Your task to perform on an android device: turn on improve location accuracy Image 0: 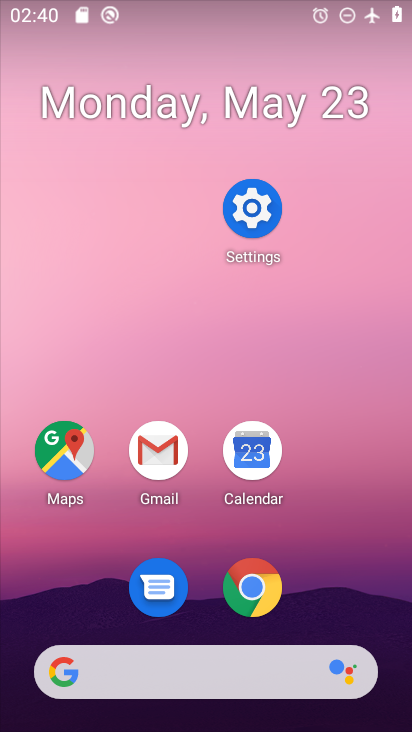
Step 0: click (332, 596)
Your task to perform on an android device: turn on improve location accuracy Image 1: 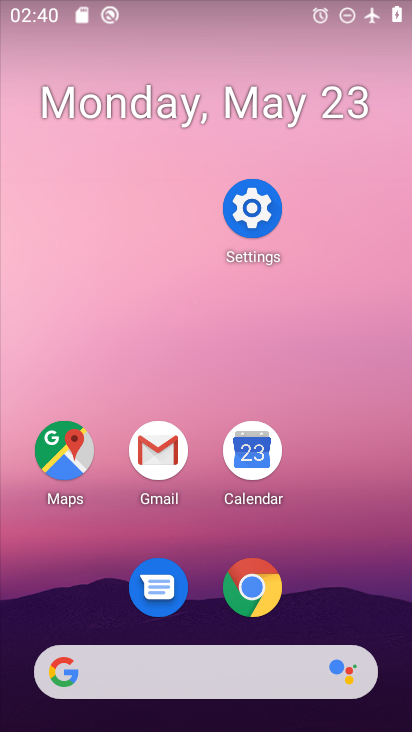
Step 1: click (332, 596)
Your task to perform on an android device: turn on improve location accuracy Image 2: 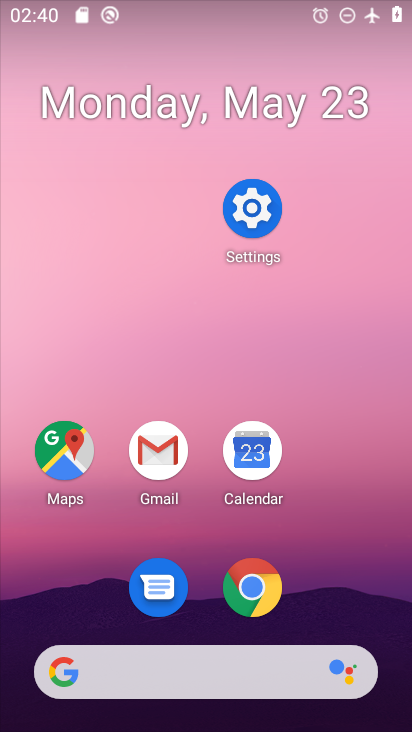
Step 2: click (259, 229)
Your task to perform on an android device: turn on improve location accuracy Image 3: 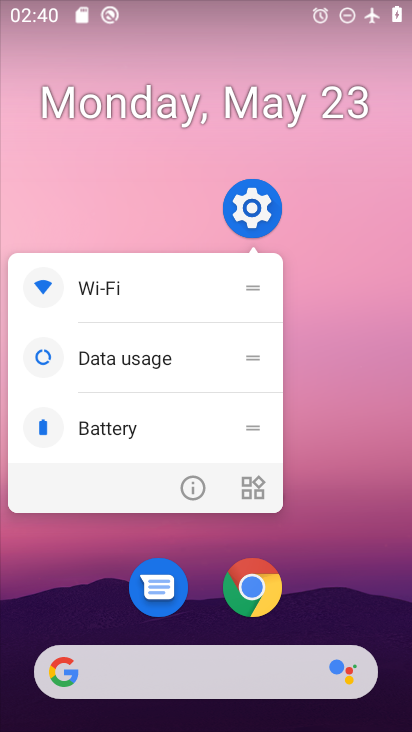
Step 3: click (259, 229)
Your task to perform on an android device: turn on improve location accuracy Image 4: 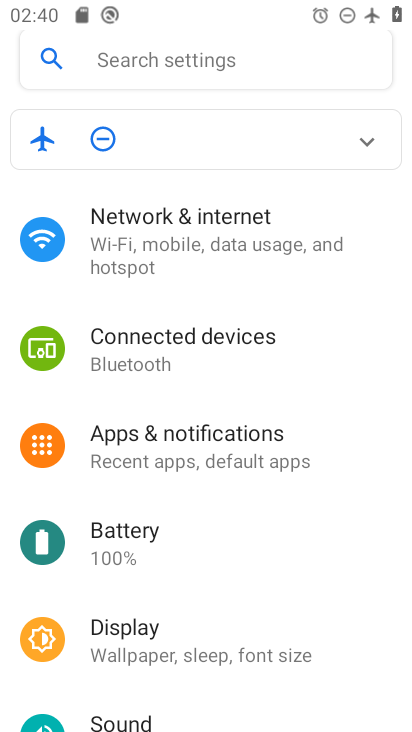
Step 4: click (361, 147)
Your task to perform on an android device: turn on improve location accuracy Image 5: 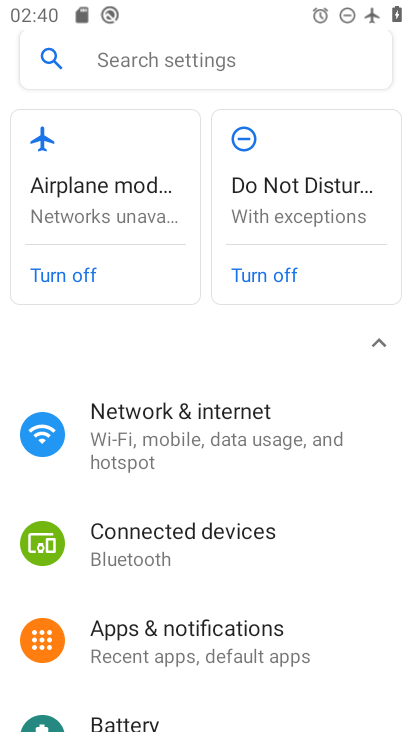
Step 5: click (108, 257)
Your task to perform on an android device: turn on improve location accuracy Image 6: 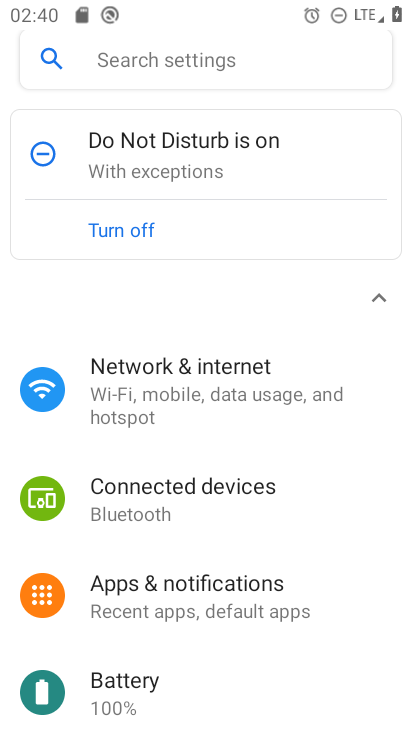
Step 6: click (257, 587)
Your task to perform on an android device: turn on improve location accuracy Image 7: 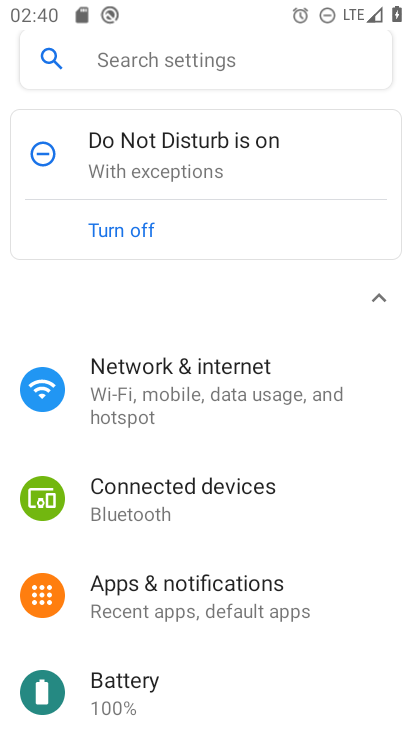
Step 7: click (111, 233)
Your task to perform on an android device: turn on improve location accuracy Image 8: 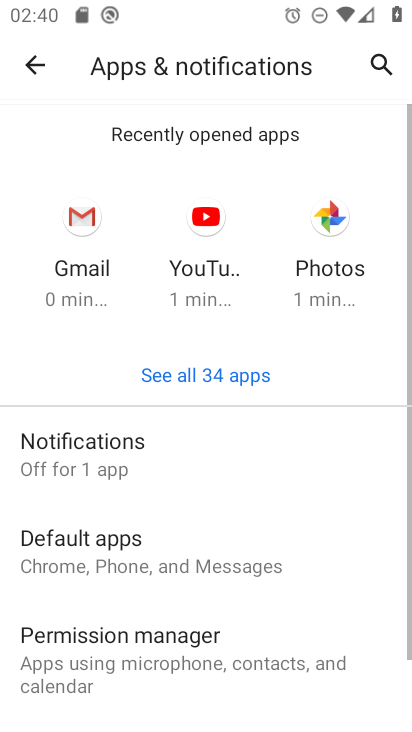
Step 8: click (42, 60)
Your task to perform on an android device: turn on improve location accuracy Image 9: 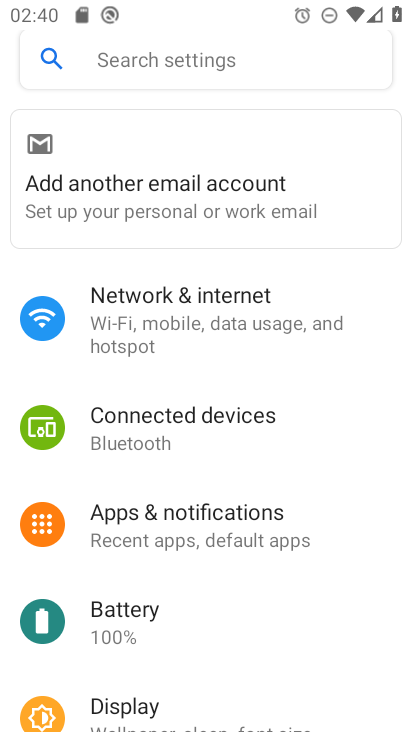
Step 9: drag from (185, 711) to (203, 169)
Your task to perform on an android device: turn on improve location accuracy Image 10: 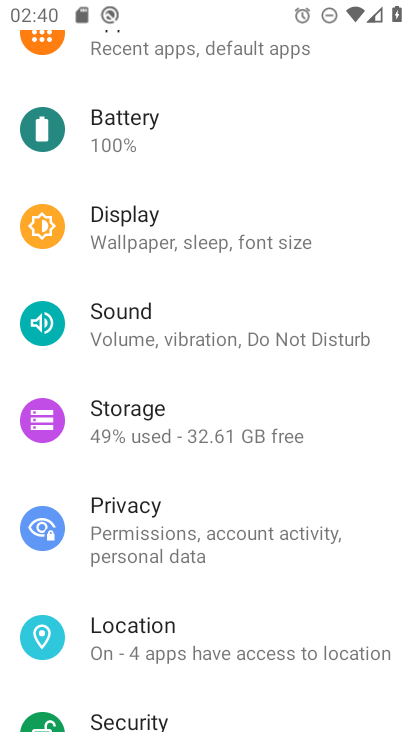
Step 10: click (270, 646)
Your task to perform on an android device: turn on improve location accuracy Image 11: 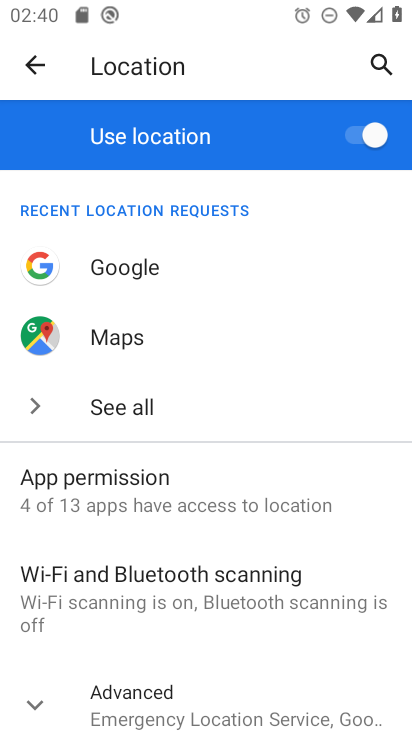
Step 11: click (152, 512)
Your task to perform on an android device: turn on improve location accuracy Image 12: 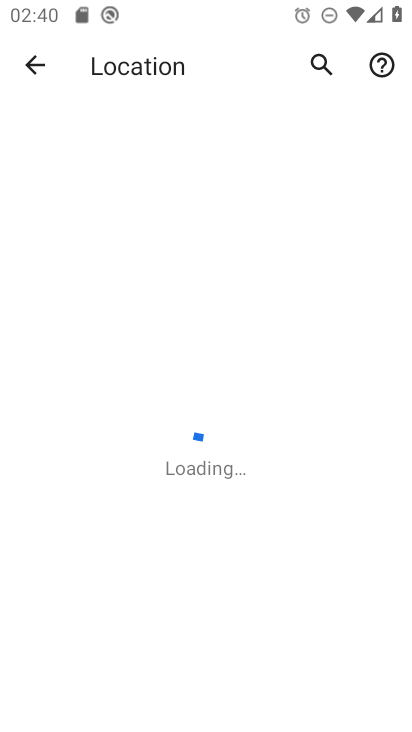
Step 12: drag from (244, 657) to (396, 34)
Your task to perform on an android device: turn on improve location accuracy Image 13: 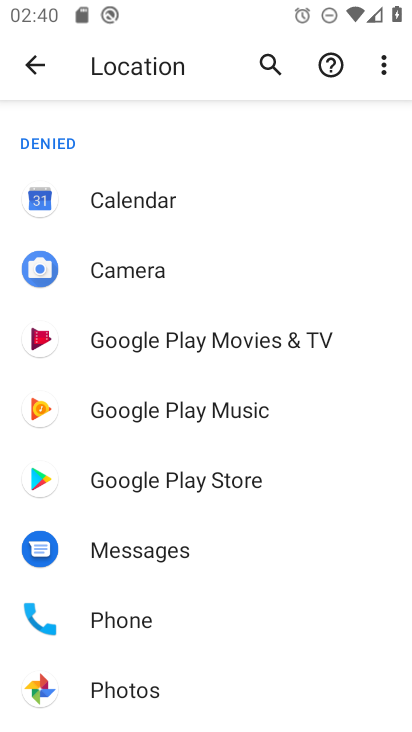
Step 13: click (16, 58)
Your task to perform on an android device: turn on improve location accuracy Image 14: 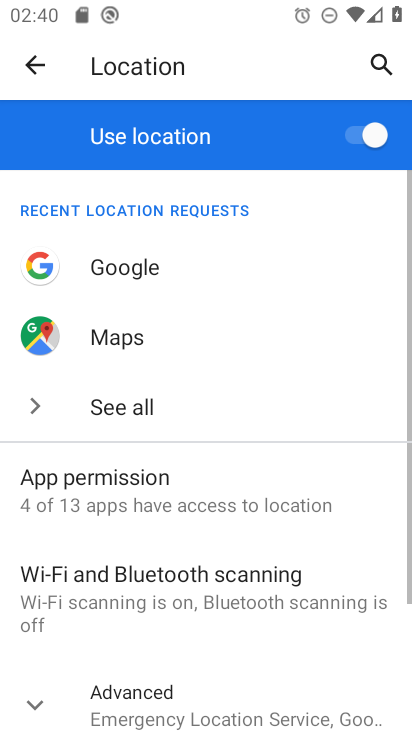
Step 14: click (254, 714)
Your task to perform on an android device: turn on improve location accuracy Image 15: 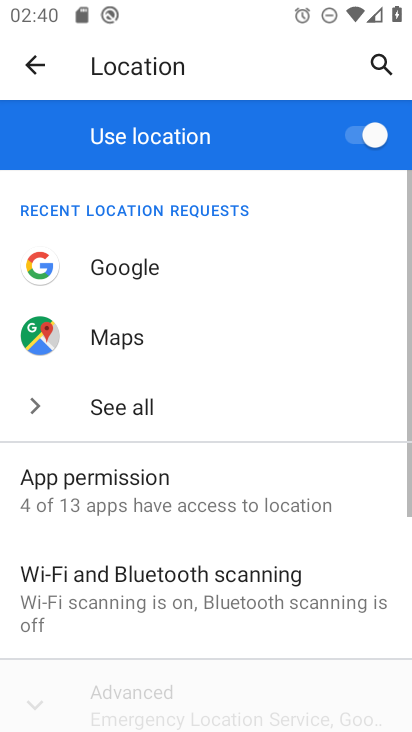
Step 15: drag from (269, 675) to (267, 210)
Your task to perform on an android device: turn on improve location accuracy Image 16: 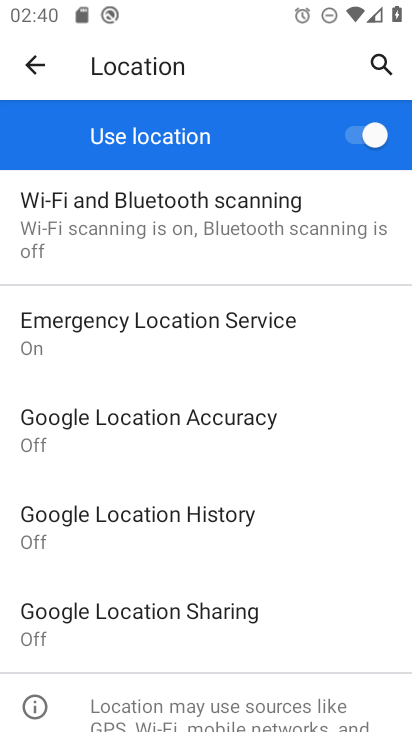
Step 16: click (253, 409)
Your task to perform on an android device: turn on improve location accuracy Image 17: 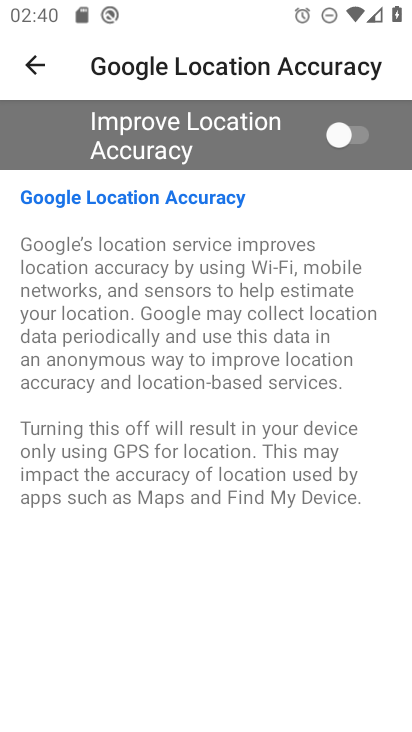
Step 17: click (348, 118)
Your task to perform on an android device: turn on improve location accuracy Image 18: 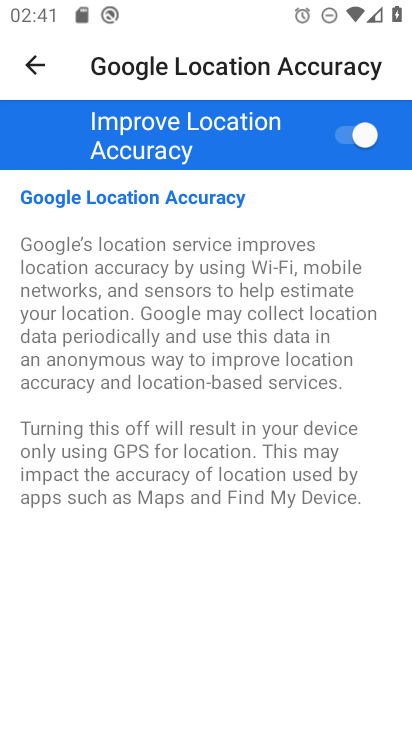
Step 18: task complete